Your task to perform on an android device: turn off location Image 0: 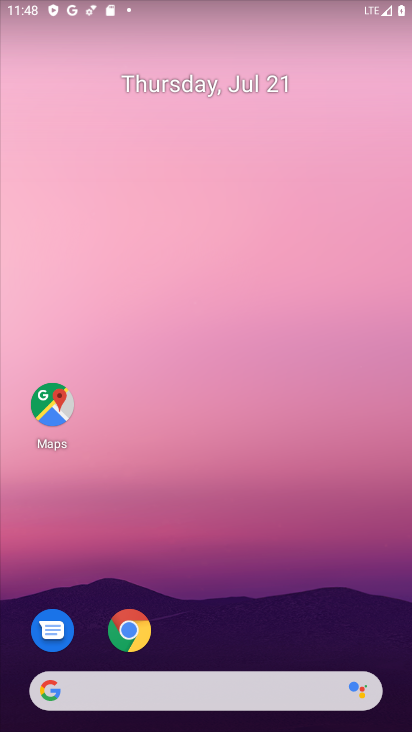
Step 0: drag from (196, 678) to (207, 62)
Your task to perform on an android device: turn off location Image 1: 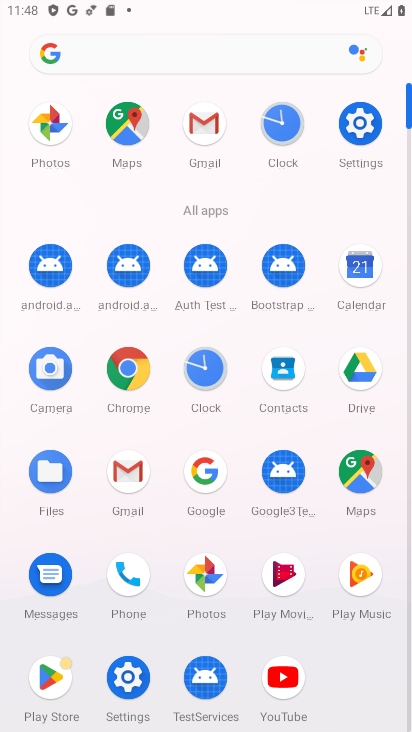
Step 1: click (123, 676)
Your task to perform on an android device: turn off location Image 2: 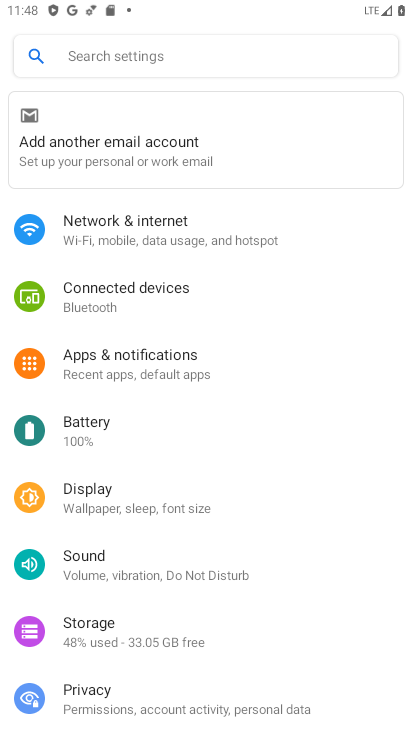
Step 2: drag from (153, 581) to (135, 231)
Your task to perform on an android device: turn off location Image 3: 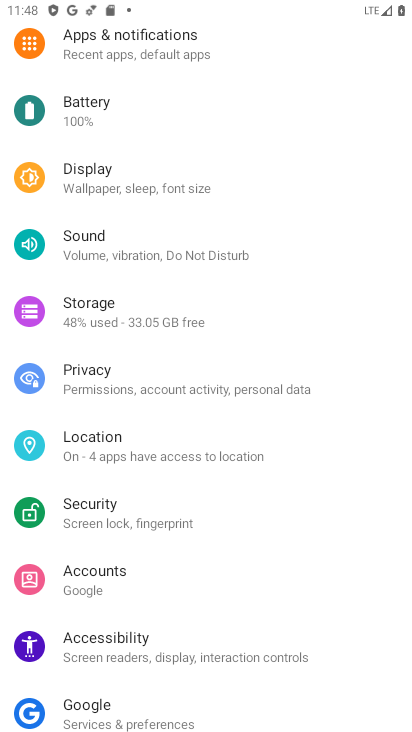
Step 3: click (96, 444)
Your task to perform on an android device: turn off location Image 4: 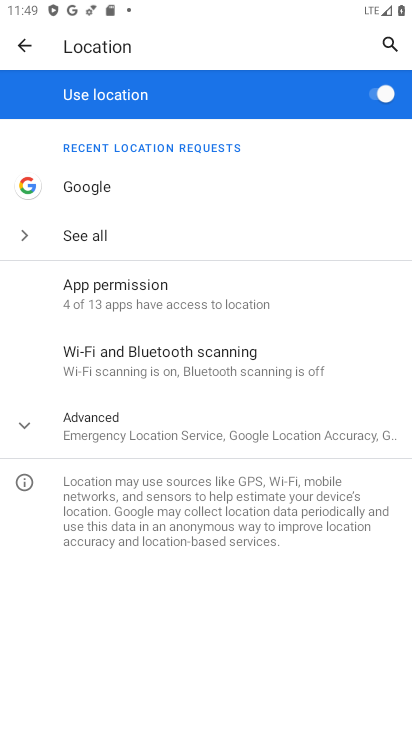
Step 4: click (390, 91)
Your task to perform on an android device: turn off location Image 5: 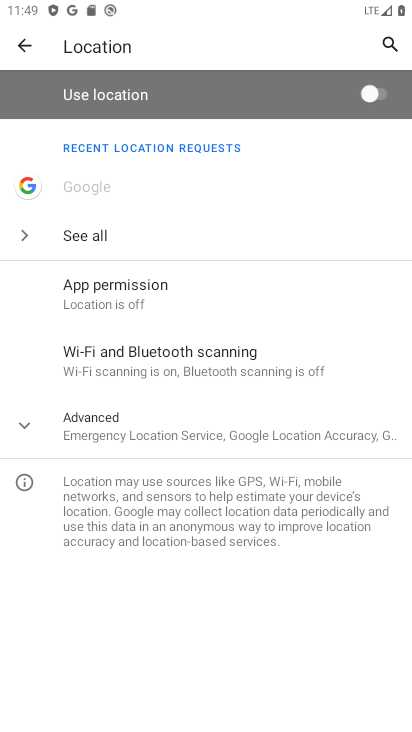
Step 5: task complete